Your task to perform on an android device: Open Reddit.com Image 0: 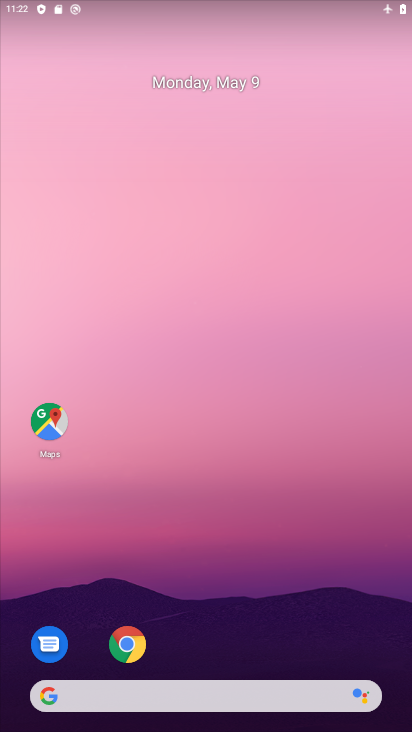
Step 0: click (137, 650)
Your task to perform on an android device: Open Reddit.com Image 1: 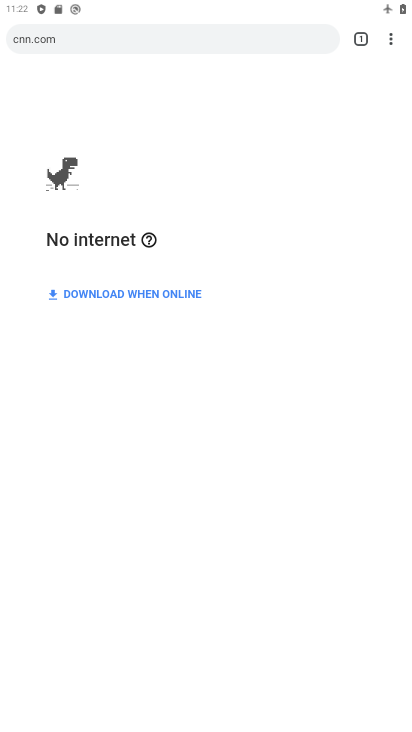
Step 1: click (358, 41)
Your task to perform on an android device: Open Reddit.com Image 2: 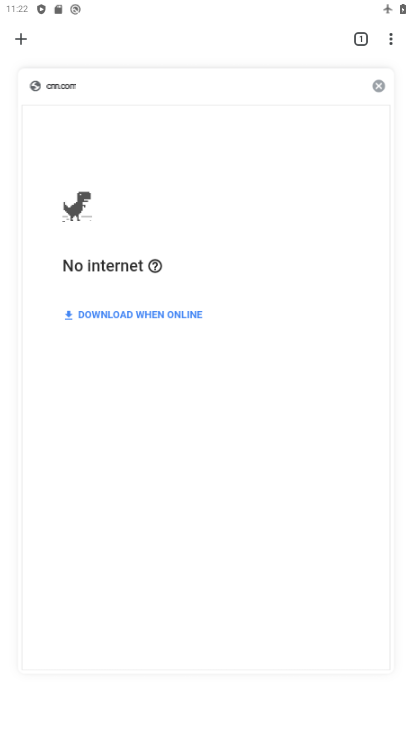
Step 2: click (16, 36)
Your task to perform on an android device: Open Reddit.com Image 3: 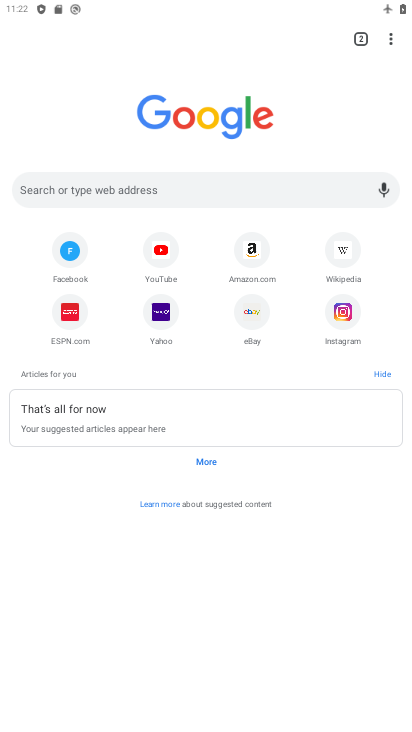
Step 3: click (143, 179)
Your task to perform on an android device: Open Reddit.com Image 4: 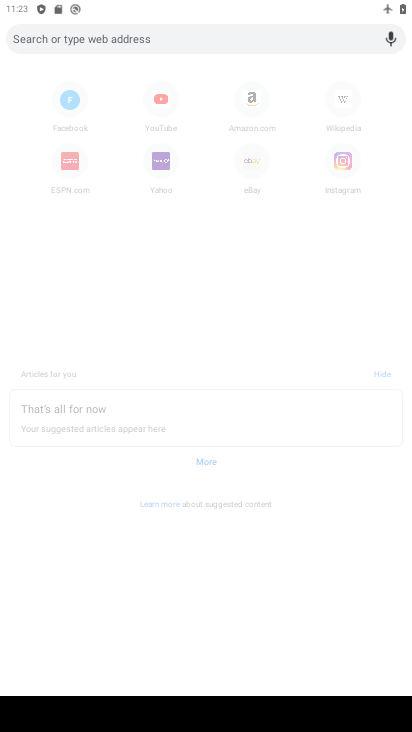
Step 4: type "Reddit.com"
Your task to perform on an android device: Open Reddit.com Image 5: 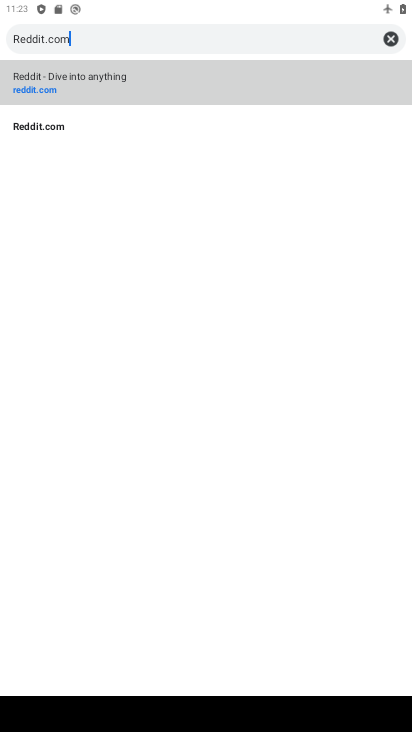
Step 5: click (79, 116)
Your task to perform on an android device: Open Reddit.com Image 6: 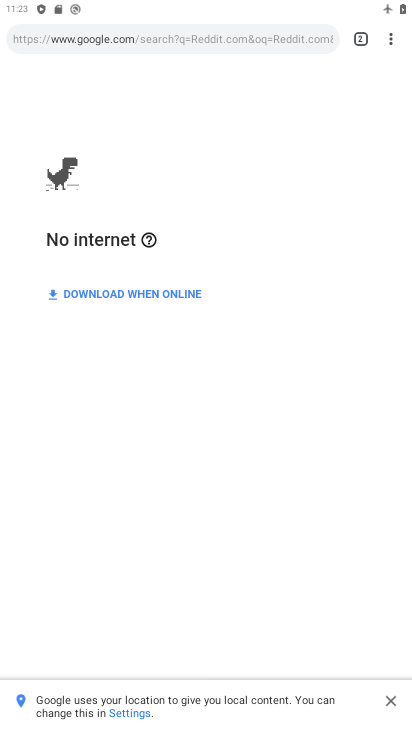
Step 6: task complete